Your task to perform on an android device: open the mobile data screen to see how much data has been used Image 0: 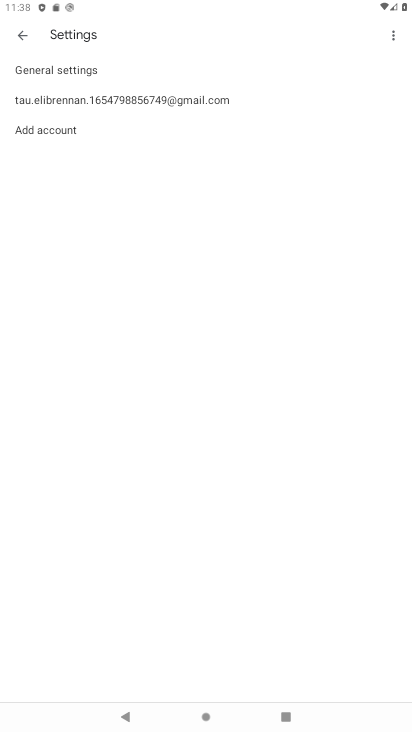
Step 0: press home button
Your task to perform on an android device: open the mobile data screen to see how much data has been used Image 1: 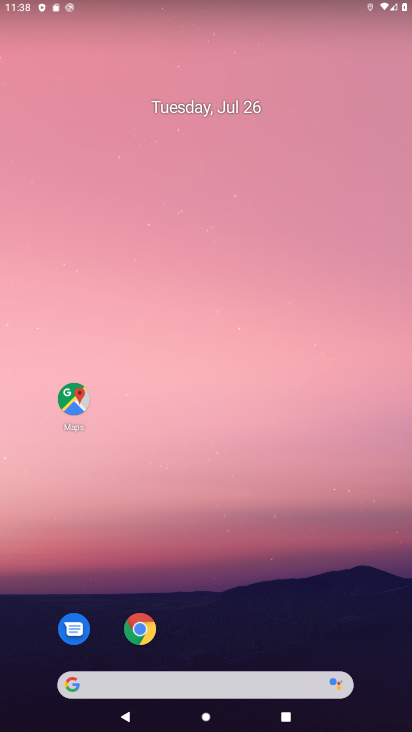
Step 1: drag from (225, 729) to (297, 150)
Your task to perform on an android device: open the mobile data screen to see how much data has been used Image 2: 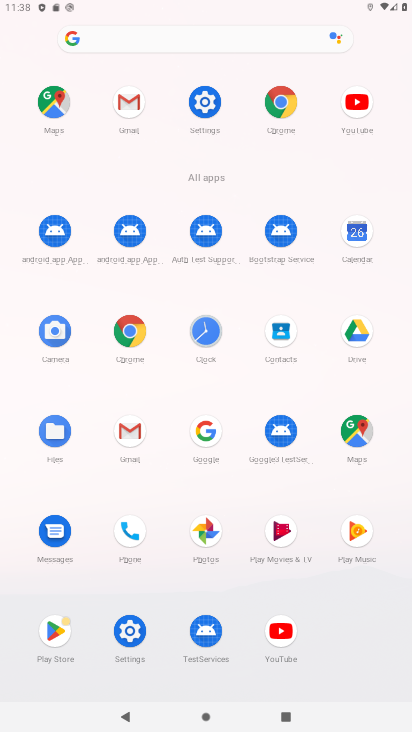
Step 2: click (203, 112)
Your task to perform on an android device: open the mobile data screen to see how much data has been used Image 3: 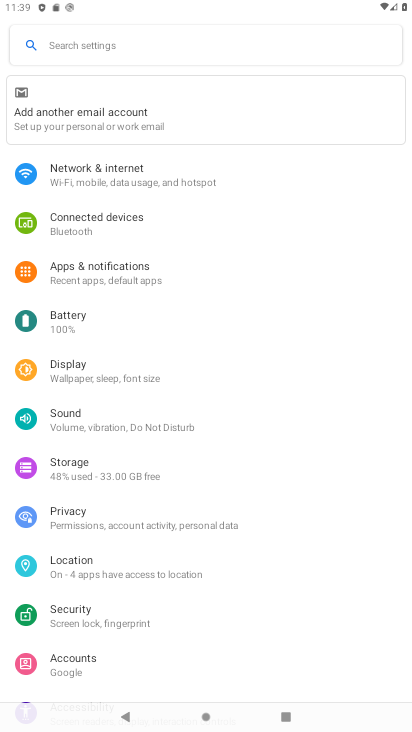
Step 3: click (95, 176)
Your task to perform on an android device: open the mobile data screen to see how much data has been used Image 4: 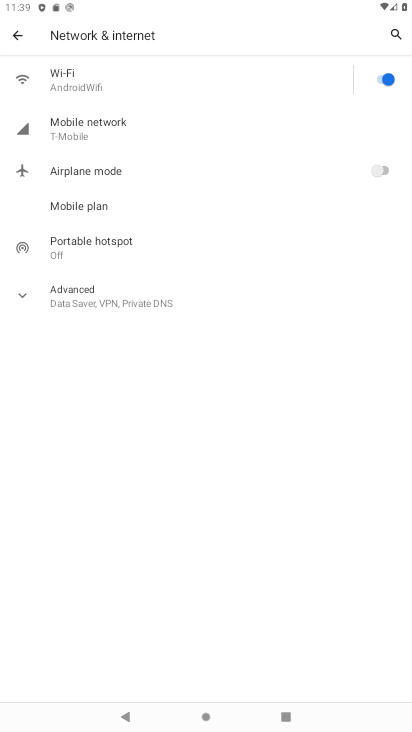
Step 4: click (93, 122)
Your task to perform on an android device: open the mobile data screen to see how much data has been used Image 5: 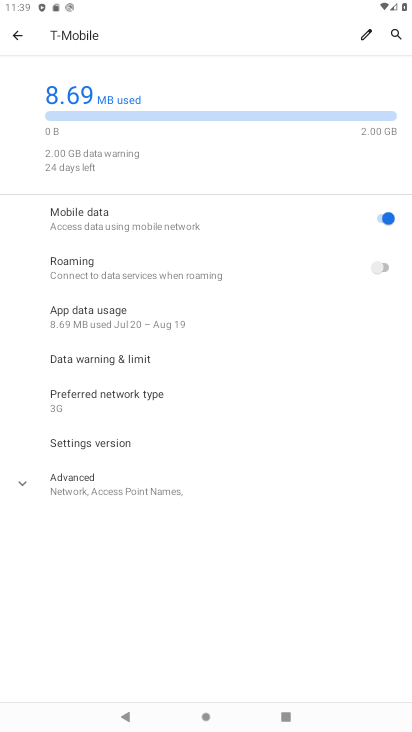
Step 5: click (96, 312)
Your task to perform on an android device: open the mobile data screen to see how much data has been used Image 6: 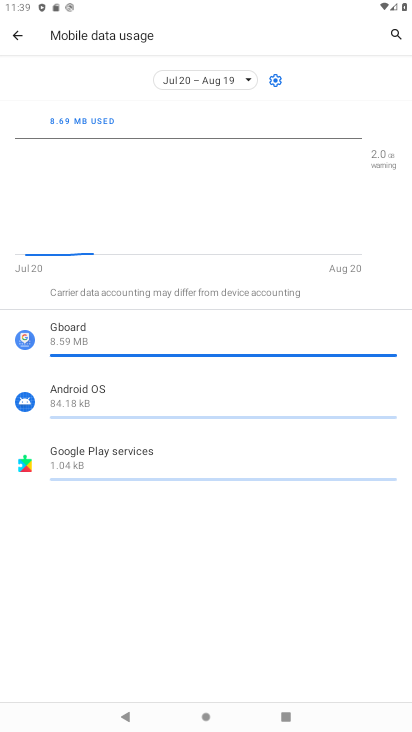
Step 6: task complete